Your task to perform on an android device: open chrome and create a bookmark for the current page Image 0: 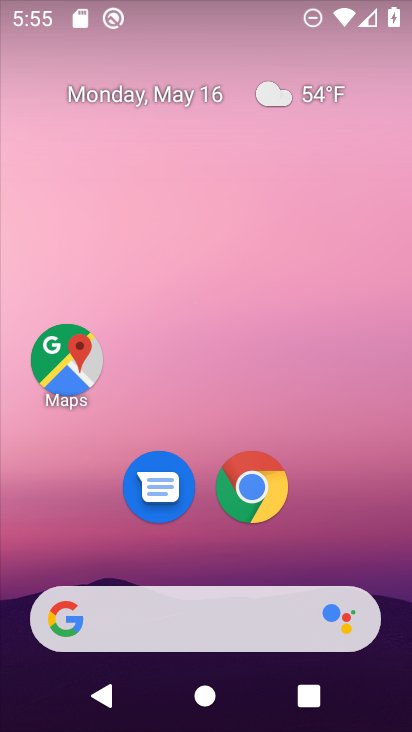
Step 0: drag from (189, 579) to (189, 233)
Your task to perform on an android device: open chrome and create a bookmark for the current page Image 1: 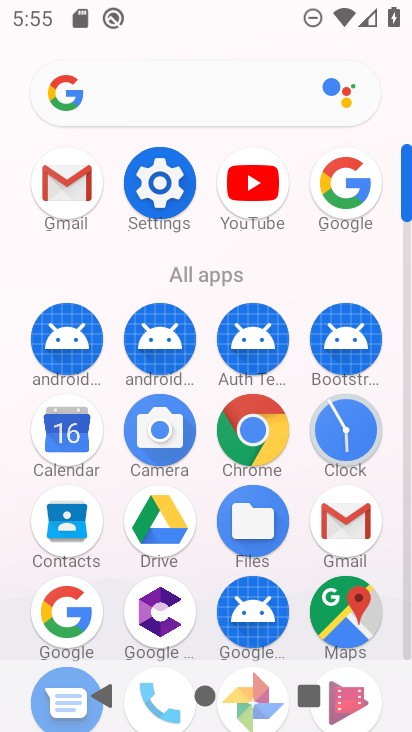
Step 1: click (244, 449)
Your task to perform on an android device: open chrome and create a bookmark for the current page Image 2: 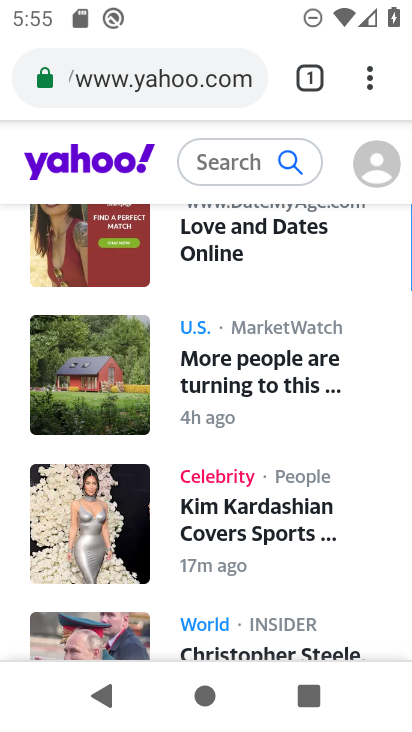
Step 2: click (372, 81)
Your task to perform on an android device: open chrome and create a bookmark for the current page Image 3: 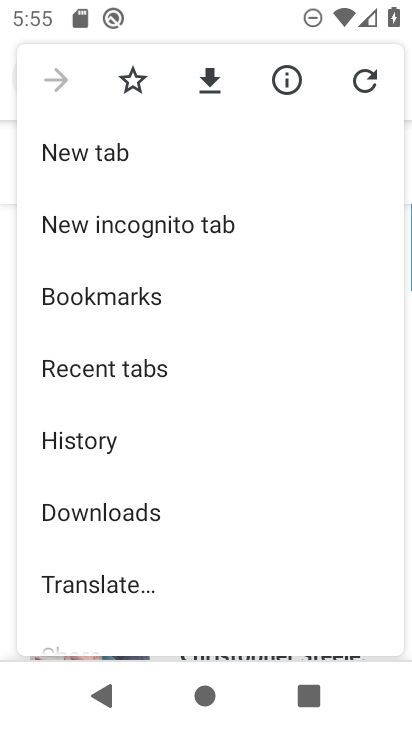
Step 3: click (128, 85)
Your task to perform on an android device: open chrome and create a bookmark for the current page Image 4: 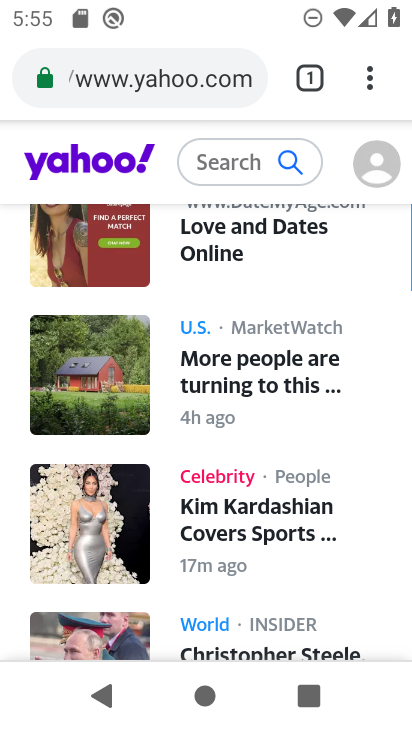
Step 4: task complete